Your task to perform on an android device: toggle sleep mode Image 0: 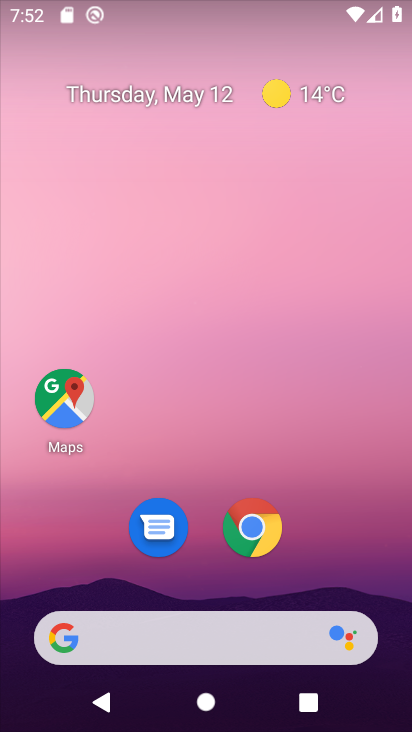
Step 0: drag from (329, 526) to (306, 177)
Your task to perform on an android device: toggle sleep mode Image 1: 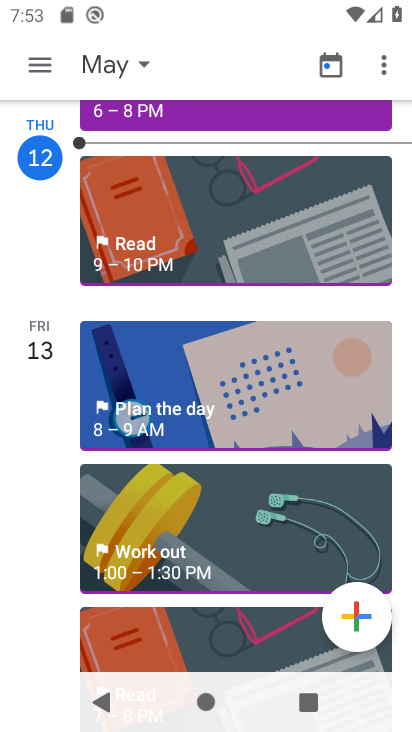
Step 1: press home button
Your task to perform on an android device: toggle sleep mode Image 2: 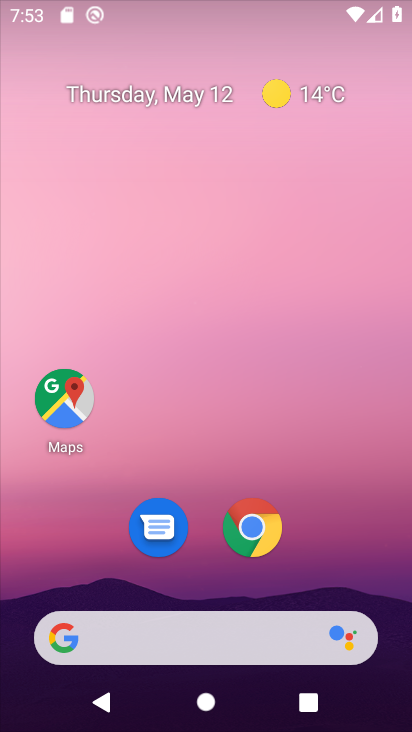
Step 2: drag from (240, 400) to (299, 85)
Your task to perform on an android device: toggle sleep mode Image 3: 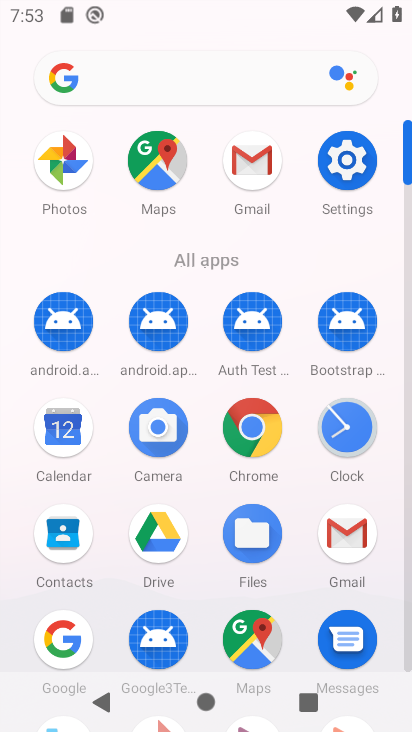
Step 3: click (282, 126)
Your task to perform on an android device: toggle sleep mode Image 4: 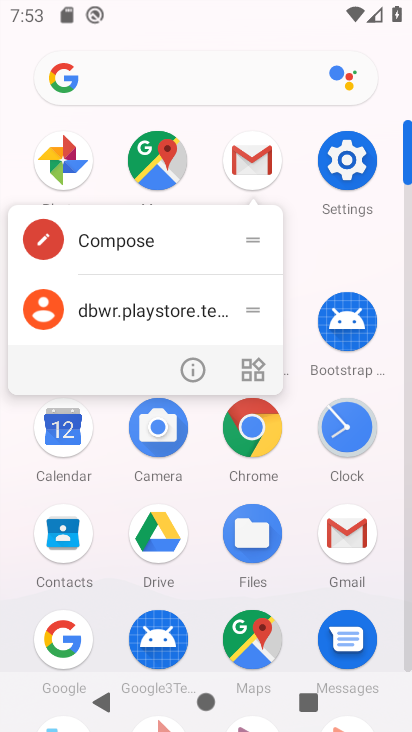
Step 4: click (357, 175)
Your task to perform on an android device: toggle sleep mode Image 5: 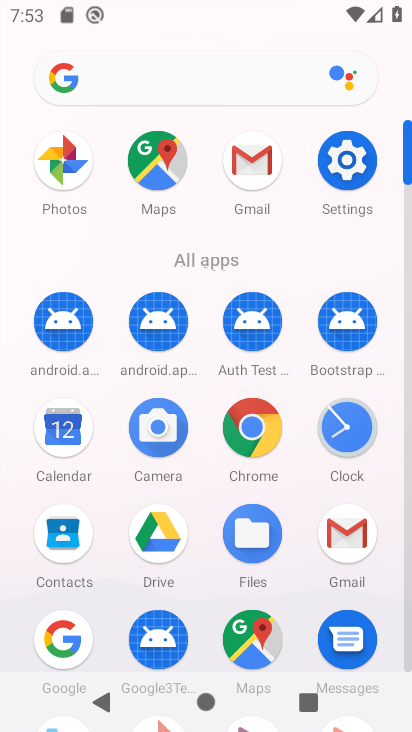
Step 5: click (351, 165)
Your task to perform on an android device: toggle sleep mode Image 6: 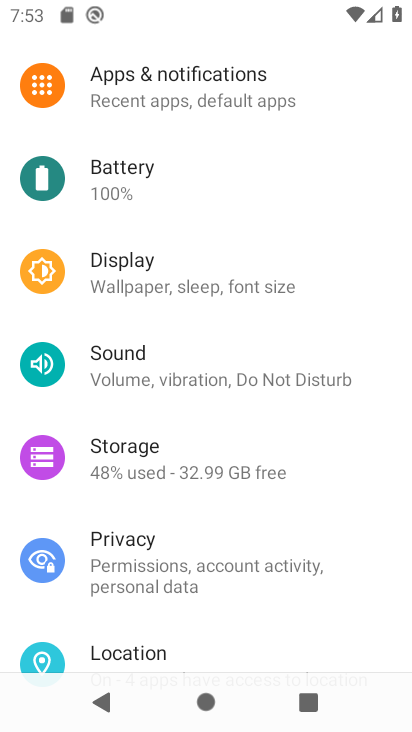
Step 6: click (260, 283)
Your task to perform on an android device: toggle sleep mode Image 7: 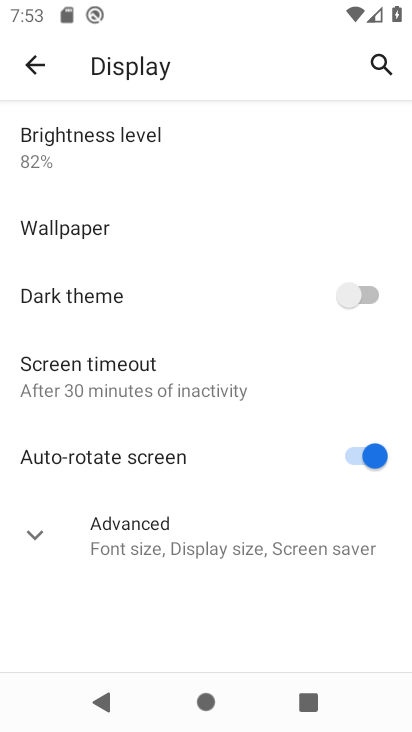
Step 7: click (32, 534)
Your task to perform on an android device: toggle sleep mode Image 8: 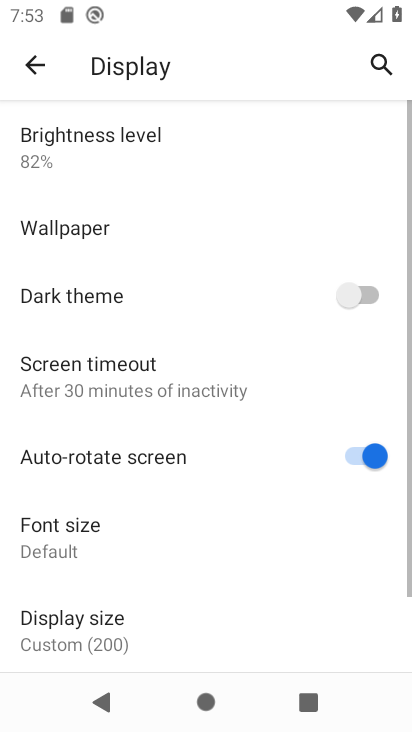
Step 8: task complete